Your task to perform on an android device: change the clock display to digital Image 0: 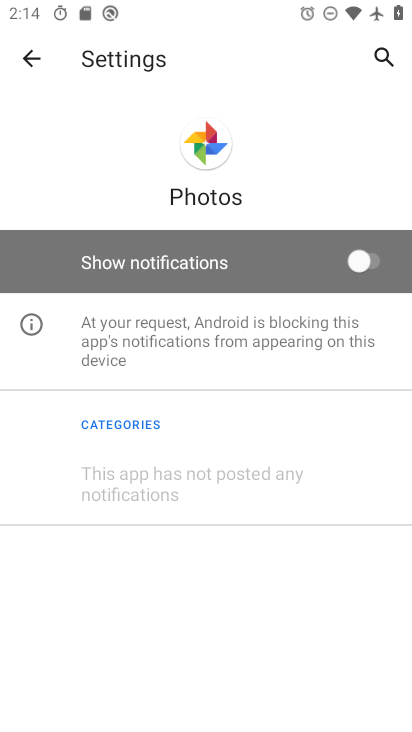
Step 0: press home button
Your task to perform on an android device: change the clock display to digital Image 1: 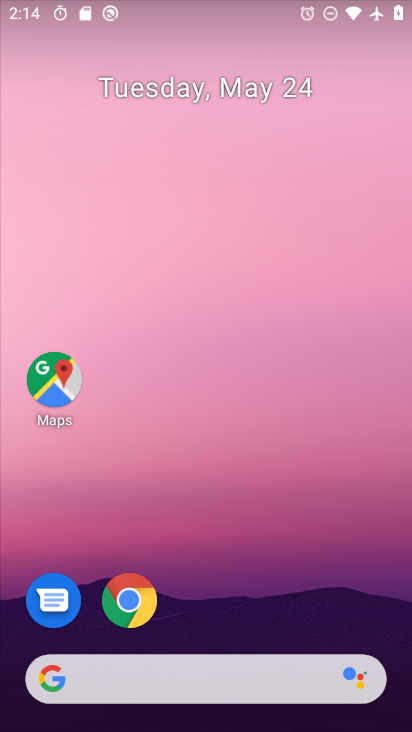
Step 1: drag from (283, 533) to (177, 45)
Your task to perform on an android device: change the clock display to digital Image 2: 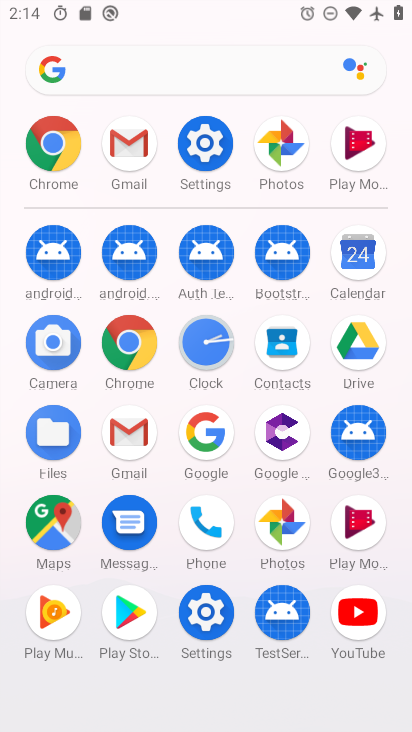
Step 2: click (206, 333)
Your task to perform on an android device: change the clock display to digital Image 3: 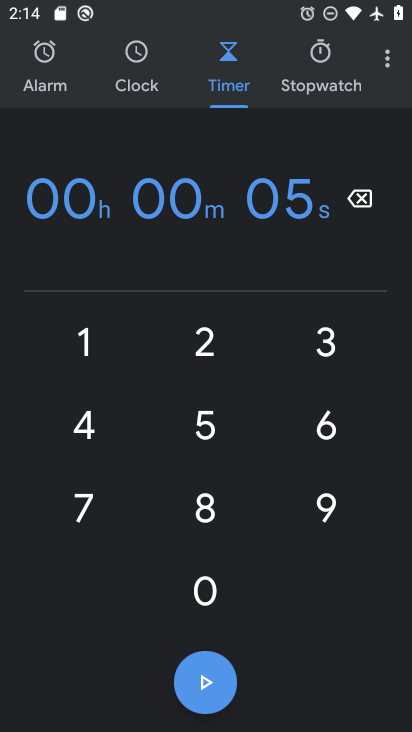
Step 3: click (392, 58)
Your task to perform on an android device: change the clock display to digital Image 4: 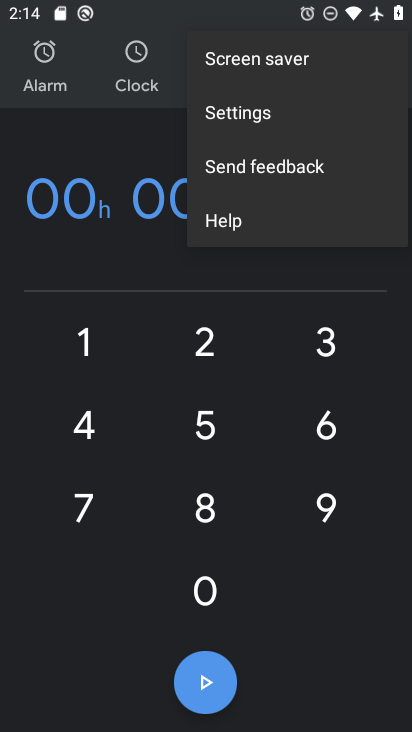
Step 4: click (229, 113)
Your task to perform on an android device: change the clock display to digital Image 5: 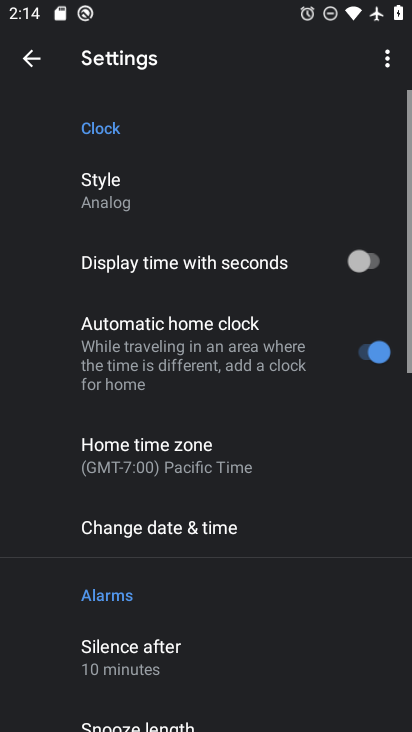
Step 5: click (102, 193)
Your task to perform on an android device: change the clock display to digital Image 6: 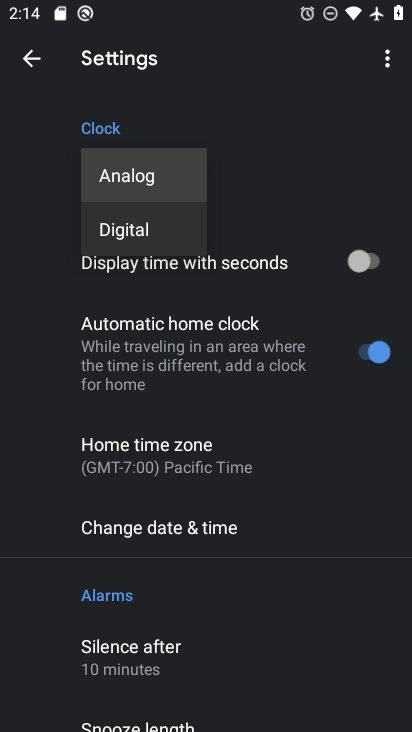
Step 6: click (171, 238)
Your task to perform on an android device: change the clock display to digital Image 7: 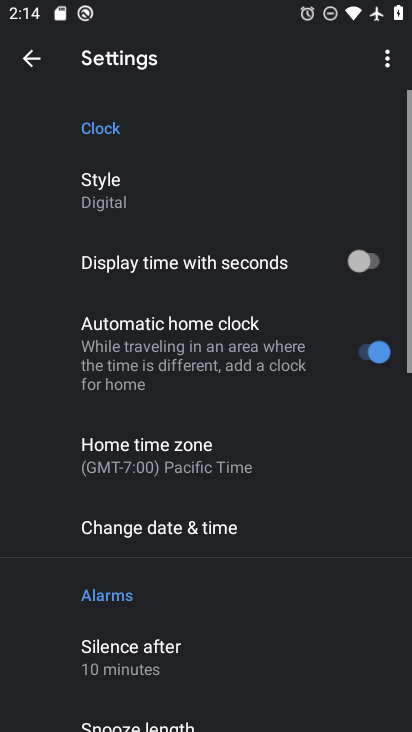
Step 7: task complete